Your task to perform on an android device: set default search engine in the chrome app Image 0: 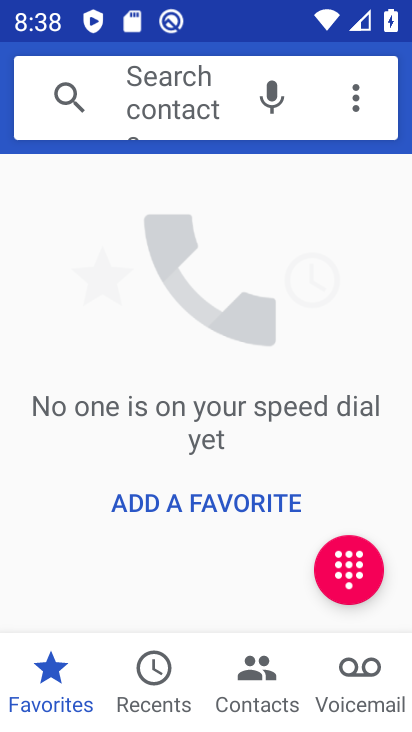
Step 0: press home button
Your task to perform on an android device: set default search engine in the chrome app Image 1: 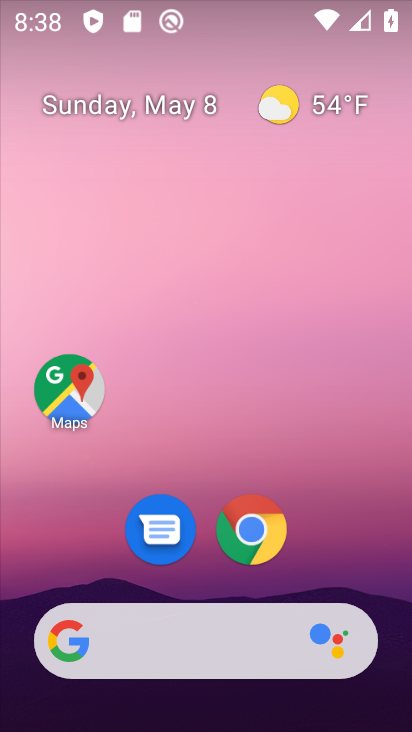
Step 1: drag from (396, 574) to (358, 61)
Your task to perform on an android device: set default search engine in the chrome app Image 2: 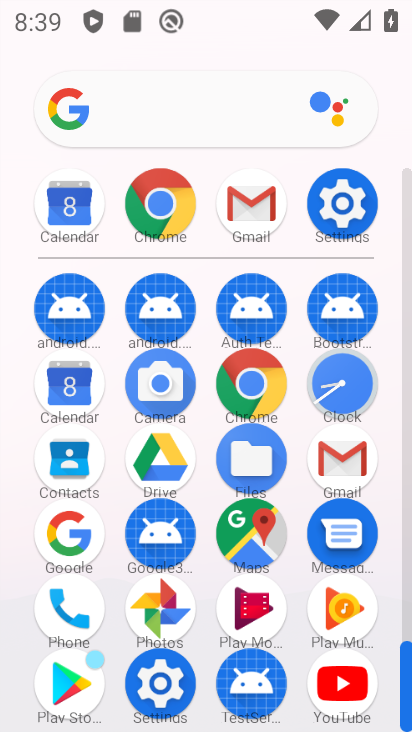
Step 2: click (272, 390)
Your task to perform on an android device: set default search engine in the chrome app Image 3: 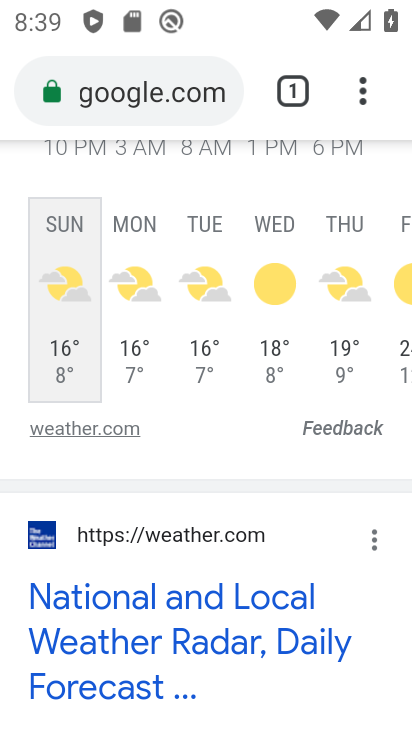
Step 3: drag from (367, 91) to (231, 546)
Your task to perform on an android device: set default search engine in the chrome app Image 4: 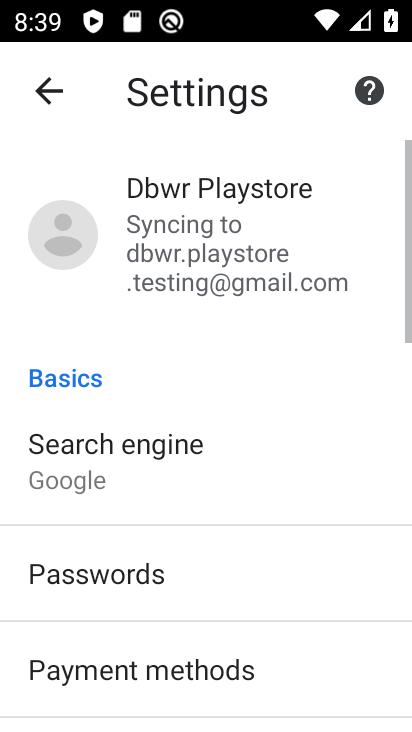
Step 4: drag from (256, 607) to (338, 224)
Your task to perform on an android device: set default search engine in the chrome app Image 5: 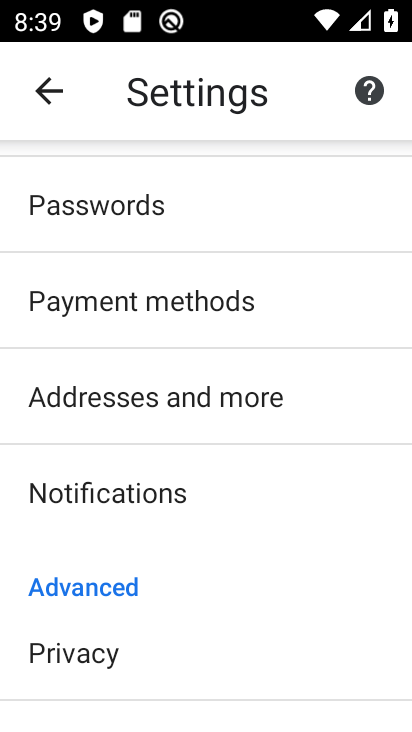
Step 5: drag from (256, 246) to (245, 582)
Your task to perform on an android device: set default search engine in the chrome app Image 6: 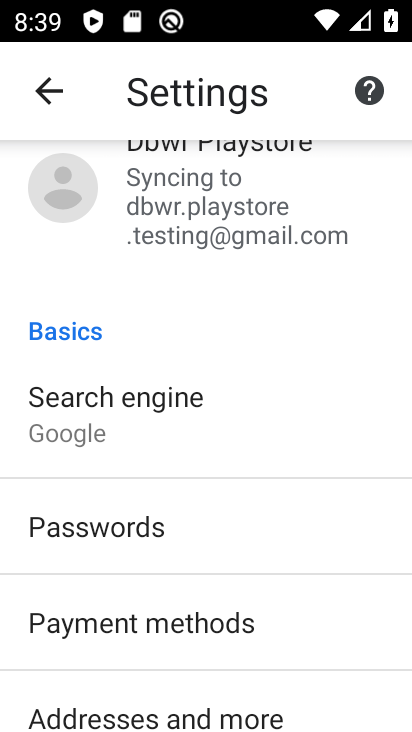
Step 6: click (117, 425)
Your task to perform on an android device: set default search engine in the chrome app Image 7: 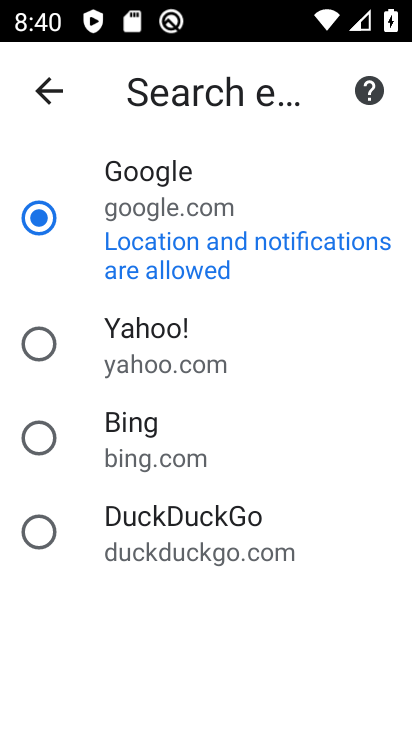
Step 7: click (39, 344)
Your task to perform on an android device: set default search engine in the chrome app Image 8: 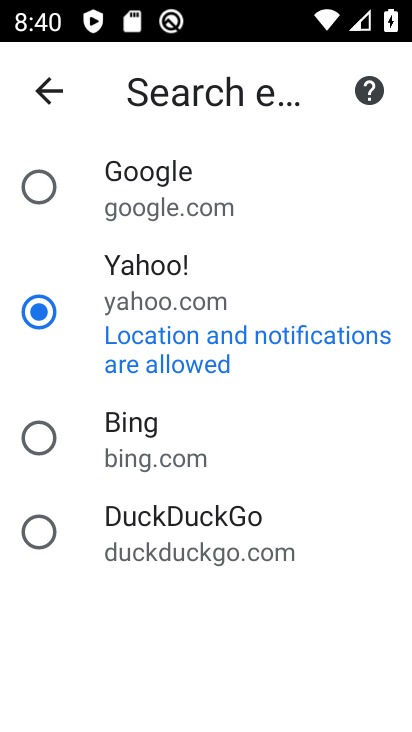
Step 8: task complete